Your task to perform on an android device: toggle priority inbox in the gmail app Image 0: 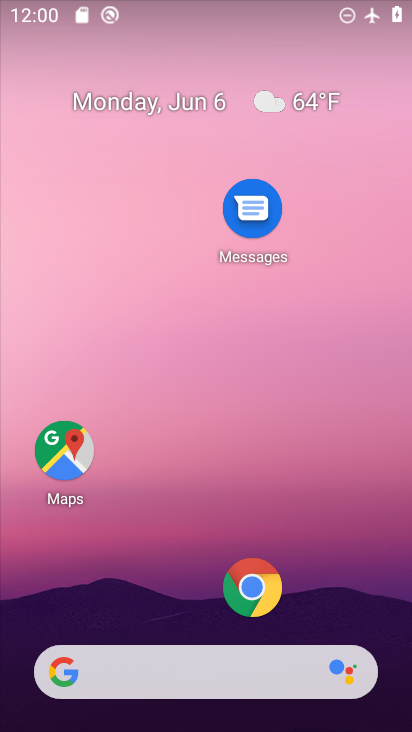
Step 0: drag from (167, 626) to (234, 197)
Your task to perform on an android device: toggle priority inbox in the gmail app Image 1: 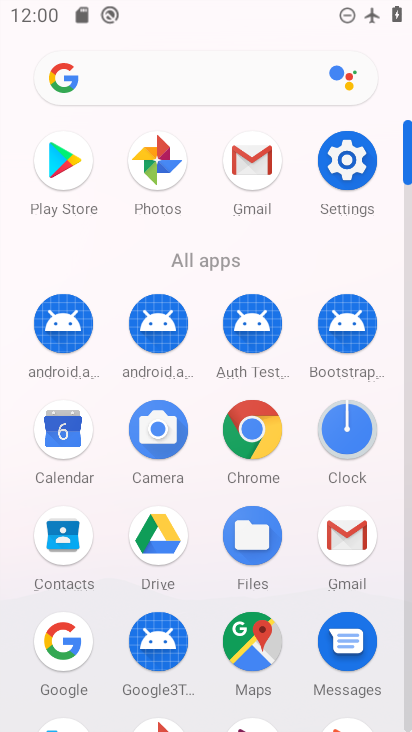
Step 1: click (245, 154)
Your task to perform on an android device: toggle priority inbox in the gmail app Image 2: 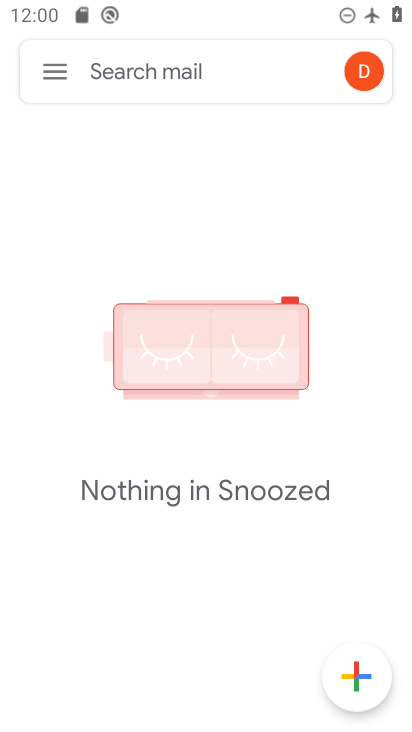
Step 2: click (61, 76)
Your task to perform on an android device: toggle priority inbox in the gmail app Image 3: 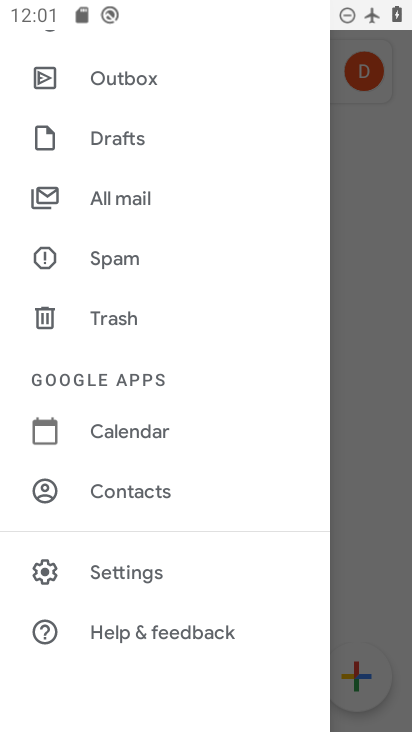
Step 3: drag from (110, 145) to (178, 511)
Your task to perform on an android device: toggle priority inbox in the gmail app Image 4: 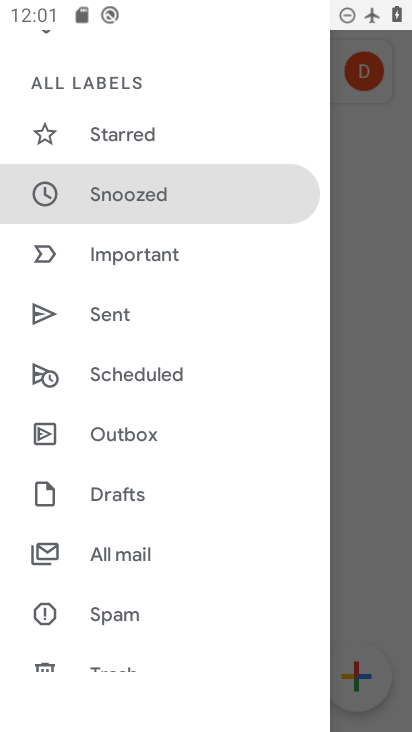
Step 4: click (212, 208)
Your task to perform on an android device: toggle priority inbox in the gmail app Image 5: 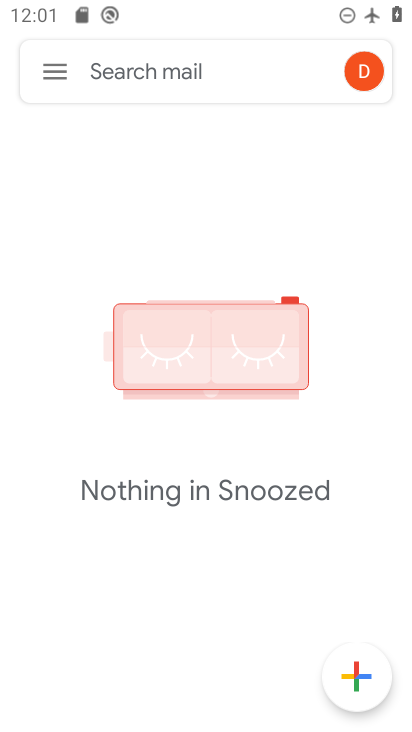
Step 5: click (60, 83)
Your task to perform on an android device: toggle priority inbox in the gmail app Image 6: 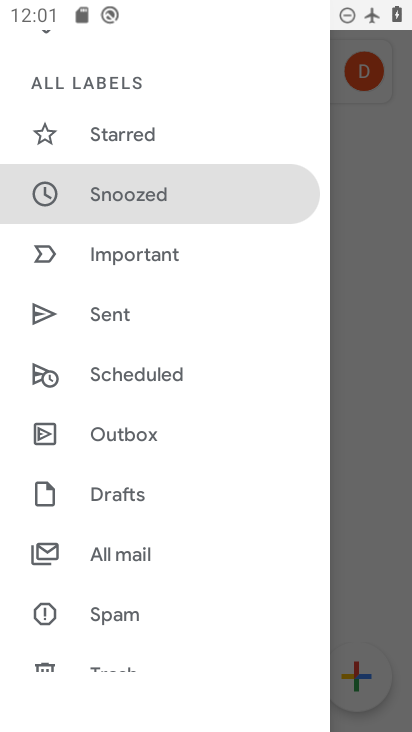
Step 6: drag from (83, 650) to (166, 217)
Your task to perform on an android device: toggle priority inbox in the gmail app Image 7: 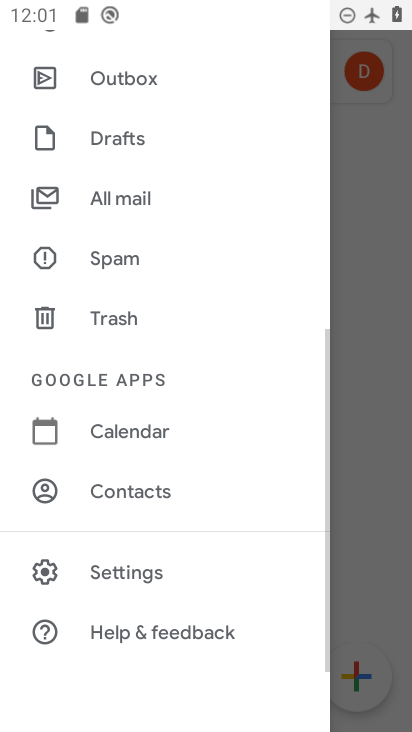
Step 7: click (85, 581)
Your task to perform on an android device: toggle priority inbox in the gmail app Image 8: 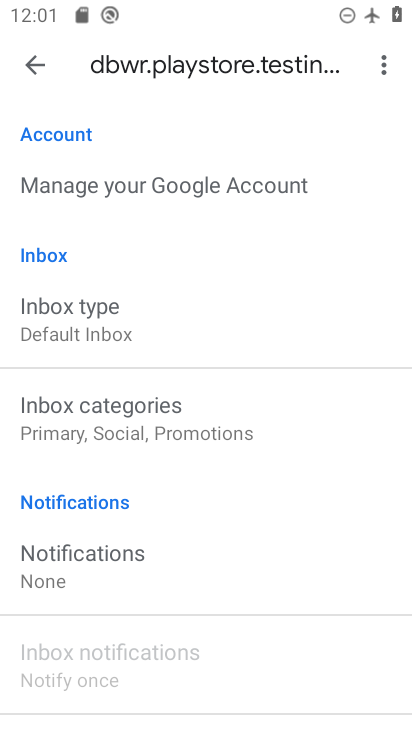
Step 8: click (88, 318)
Your task to perform on an android device: toggle priority inbox in the gmail app Image 9: 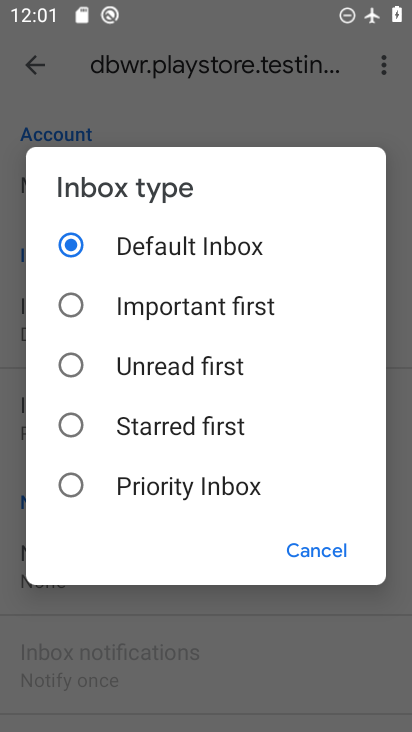
Step 9: click (167, 385)
Your task to perform on an android device: toggle priority inbox in the gmail app Image 10: 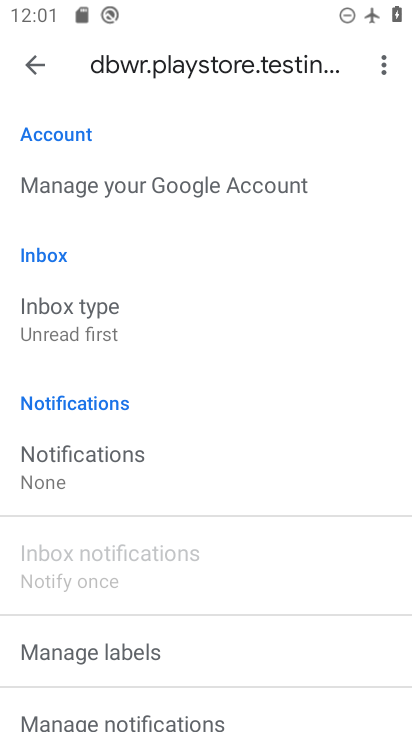
Step 10: task complete